Your task to perform on an android device: change notifications settings Image 0: 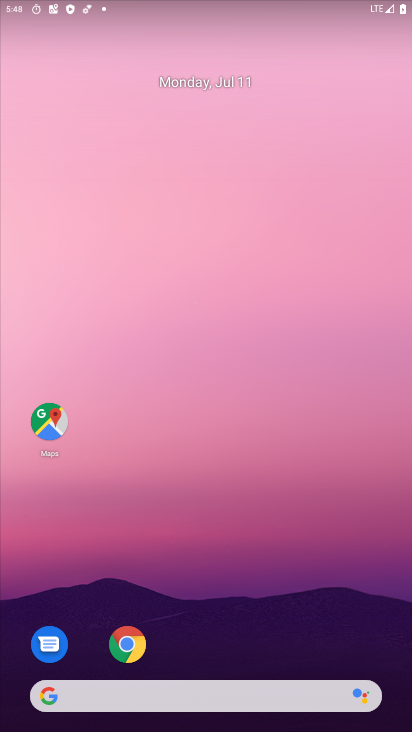
Step 0: drag from (252, 669) to (266, 47)
Your task to perform on an android device: change notifications settings Image 1: 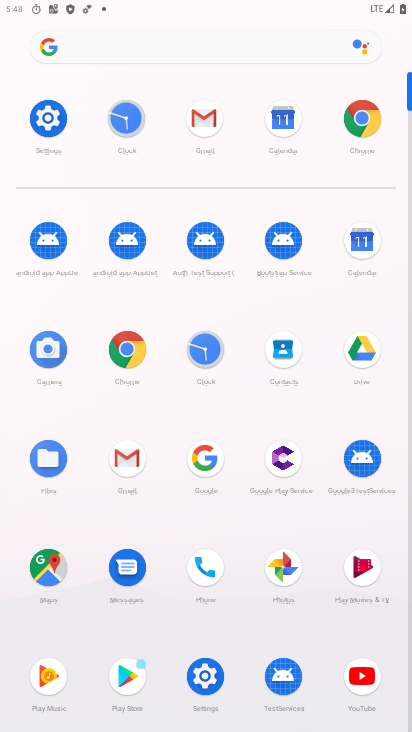
Step 1: click (42, 124)
Your task to perform on an android device: change notifications settings Image 2: 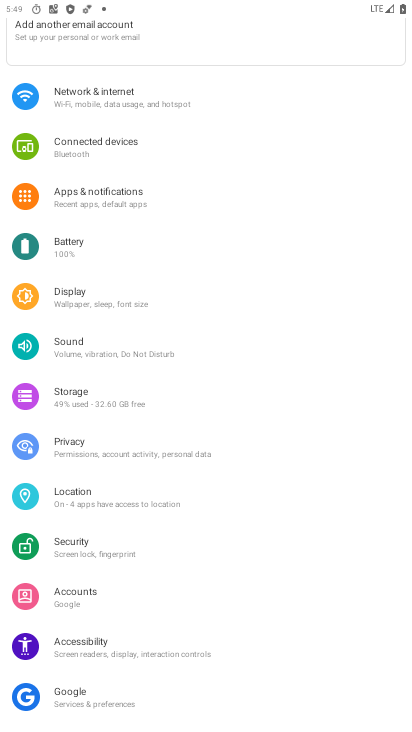
Step 2: click (110, 189)
Your task to perform on an android device: change notifications settings Image 3: 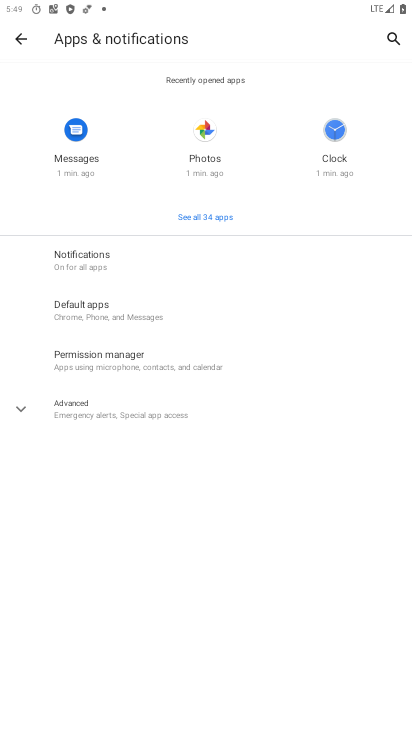
Step 3: task complete